Your task to perform on an android device: turn off data saver in the chrome app Image 0: 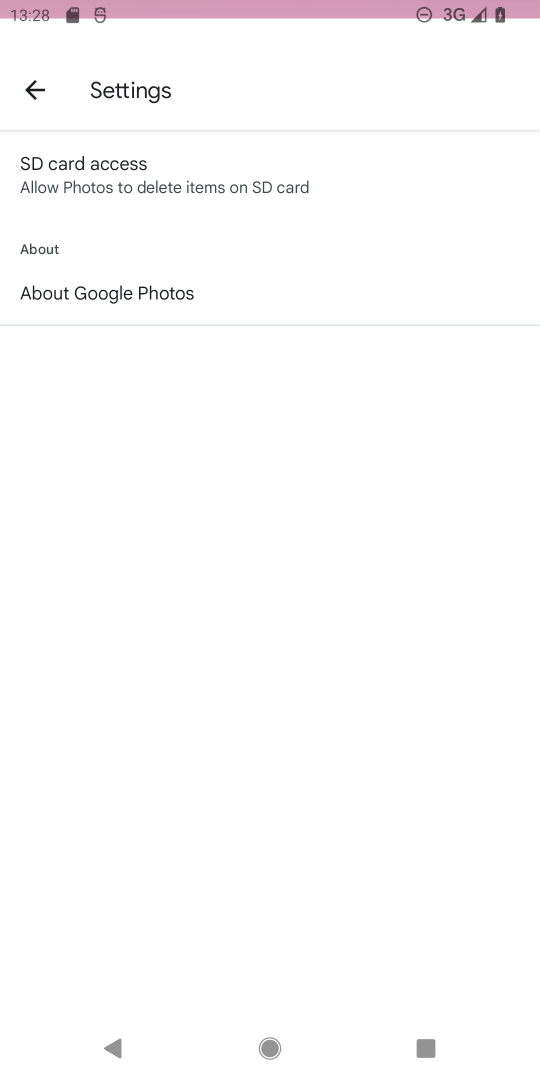
Step 0: press home button
Your task to perform on an android device: turn off data saver in the chrome app Image 1: 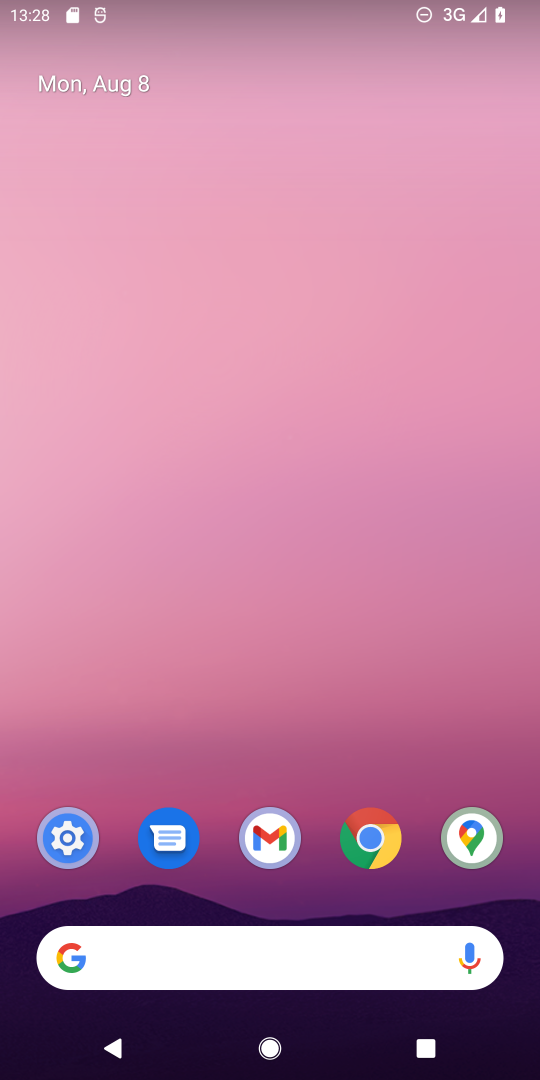
Step 1: click (371, 836)
Your task to perform on an android device: turn off data saver in the chrome app Image 2: 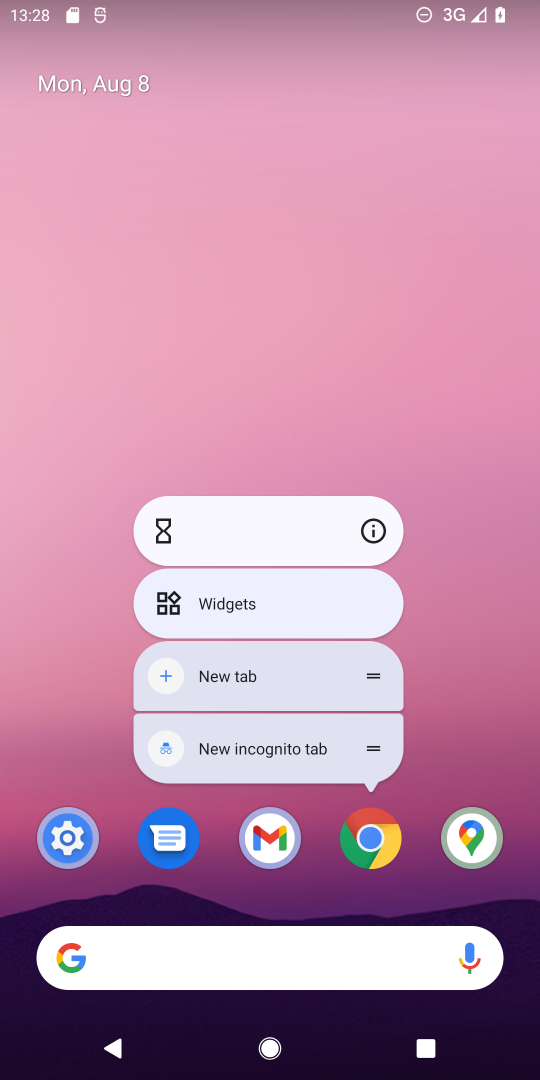
Step 2: click (371, 836)
Your task to perform on an android device: turn off data saver in the chrome app Image 3: 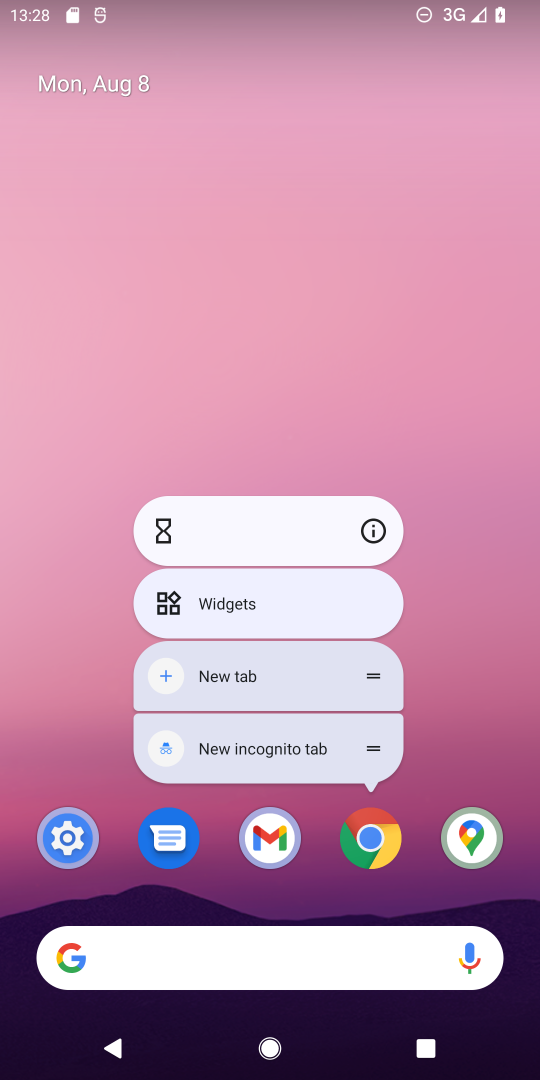
Step 3: click (370, 849)
Your task to perform on an android device: turn off data saver in the chrome app Image 4: 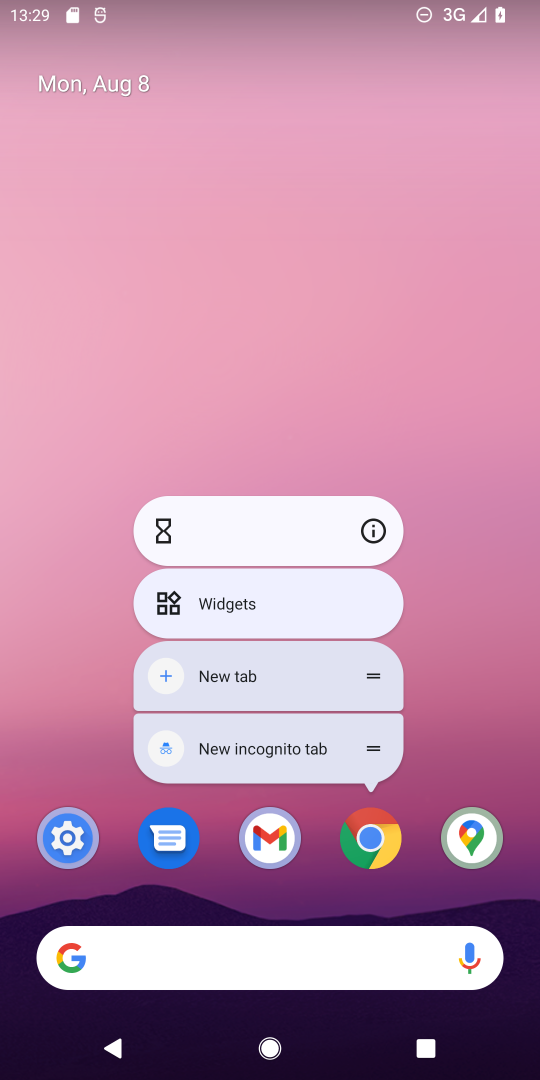
Step 4: click (427, 701)
Your task to perform on an android device: turn off data saver in the chrome app Image 5: 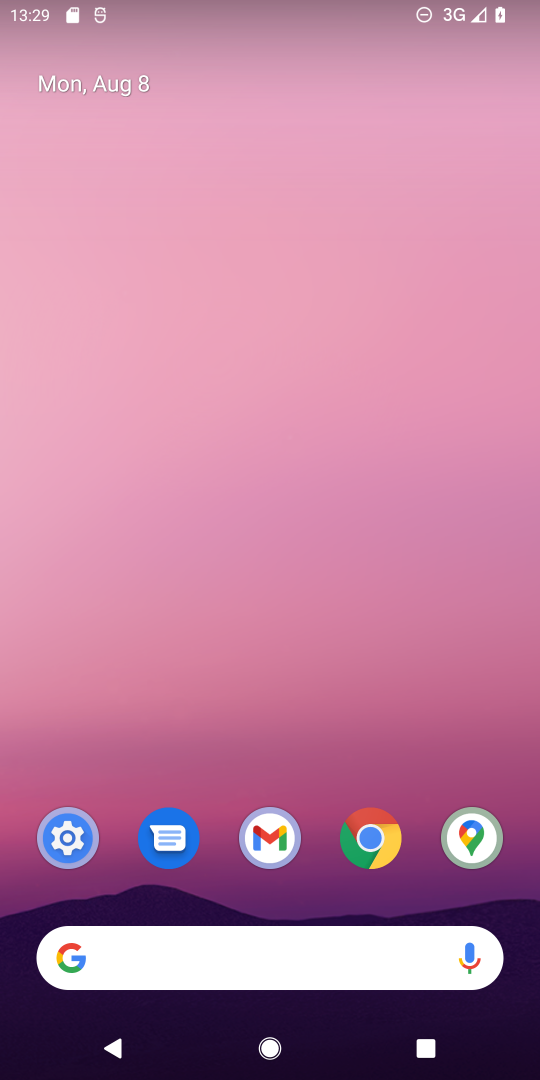
Step 5: click (361, 838)
Your task to perform on an android device: turn off data saver in the chrome app Image 6: 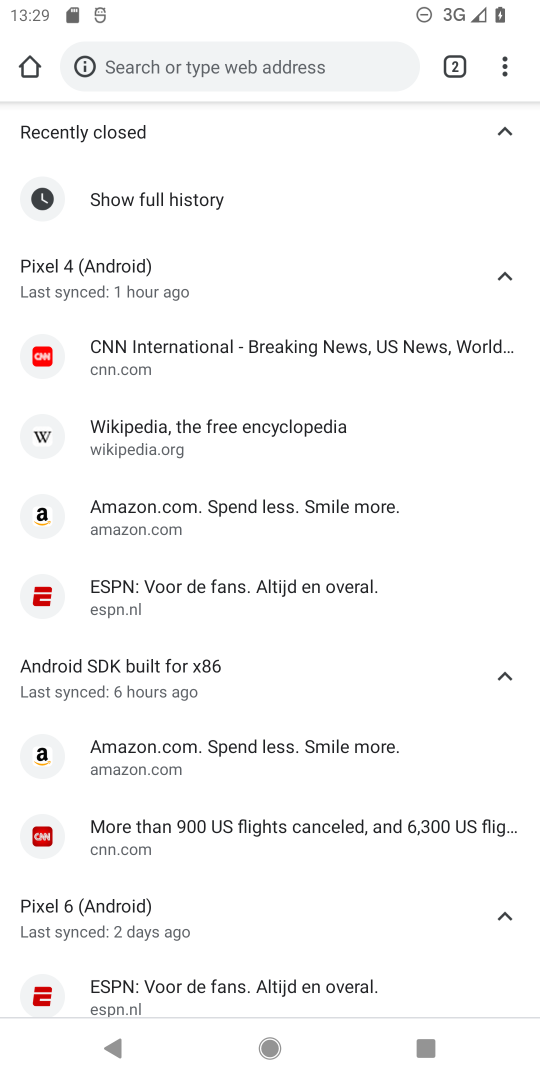
Step 6: drag from (502, 61) to (293, 674)
Your task to perform on an android device: turn off data saver in the chrome app Image 7: 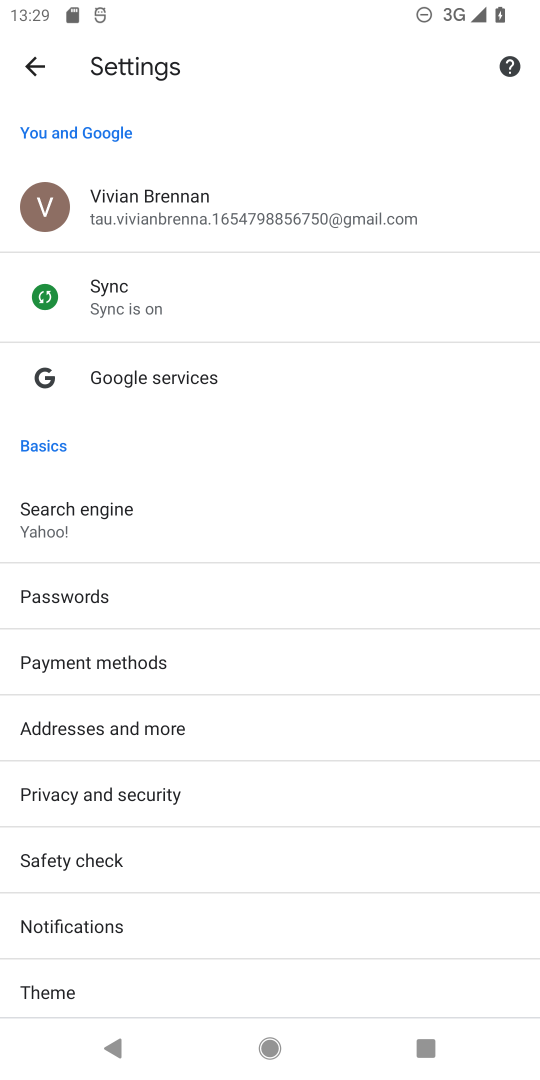
Step 7: drag from (258, 955) to (326, 355)
Your task to perform on an android device: turn off data saver in the chrome app Image 8: 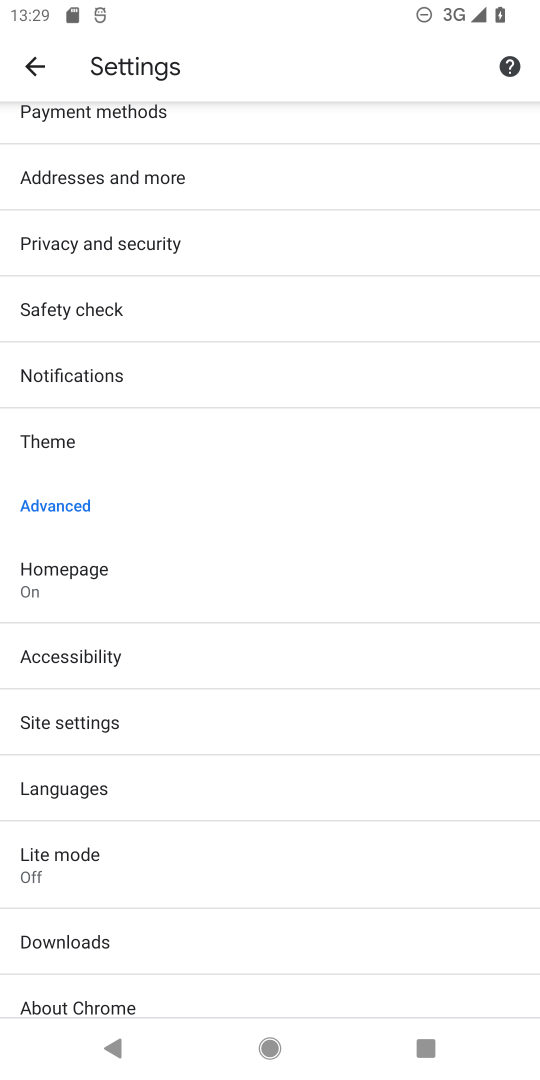
Step 8: click (36, 862)
Your task to perform on an android device: turn off data saver in the chrome app Image 9: 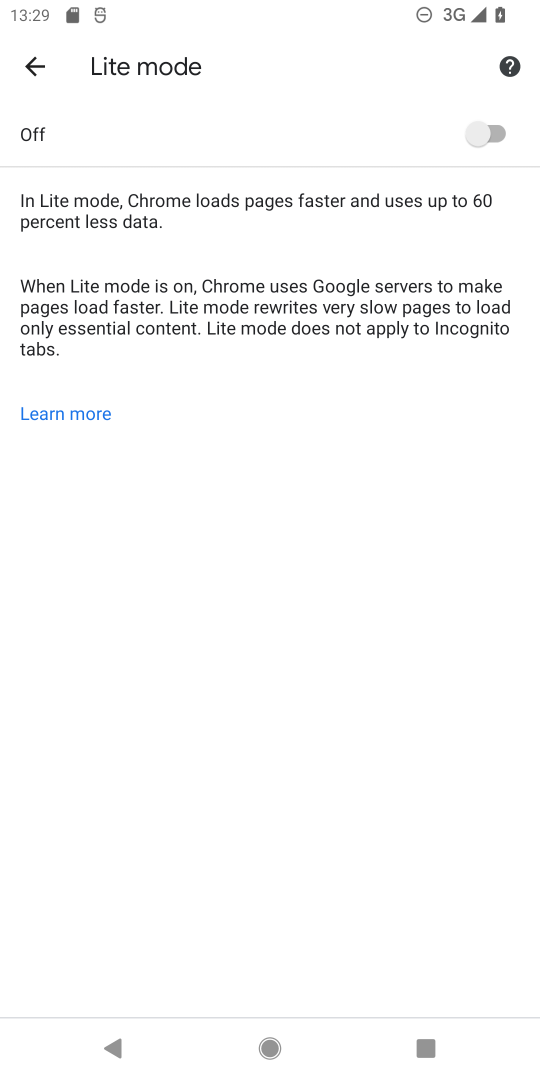
Step 9: task complete